Your task to perform on an android device: Search for sushi restaurants on Maps Image 0: 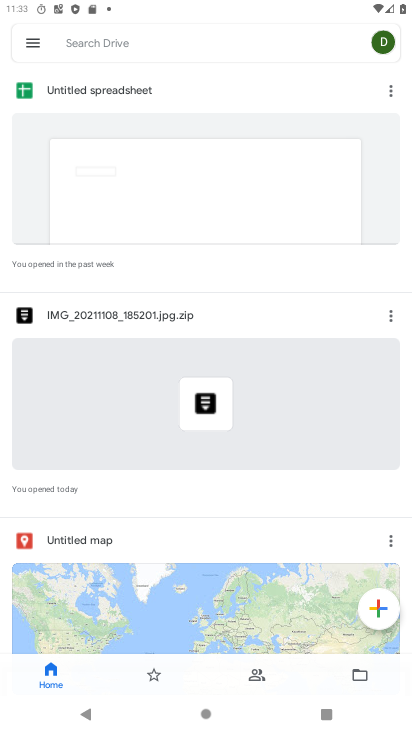
Step 0: press home button
Your task to perform on an android device: Search for sushi restaurants on Maps Image 1: 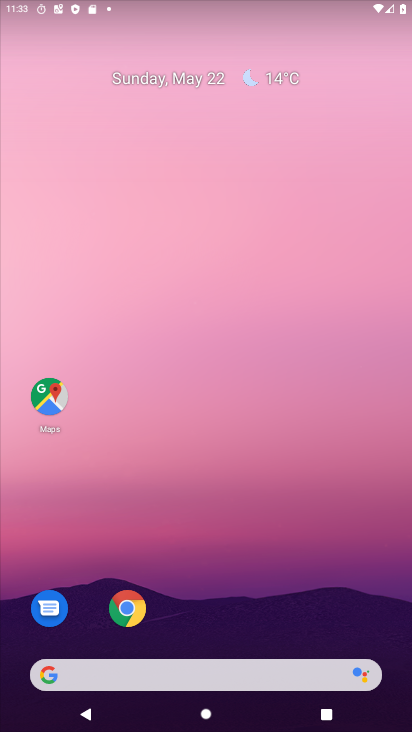
Step 1: drag from (168, 723) to (157, 110)
Your task to perform on an android device: Search for sushi restaurants on Maps Image 2: 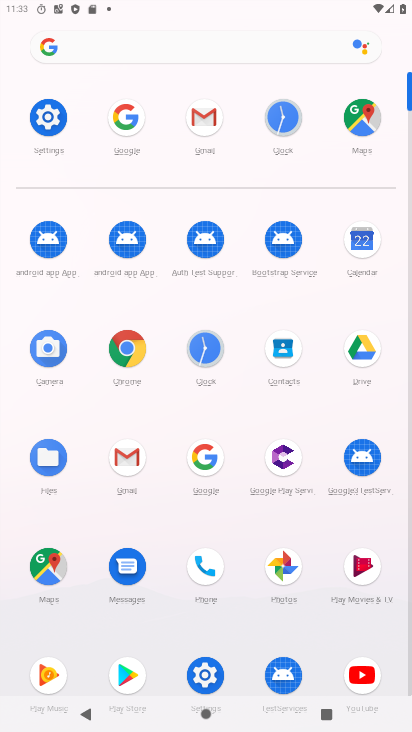
Step 2: click (41, 565)
Your task to perform on an android device: Search for sushi restaurants on Maps Image 3: 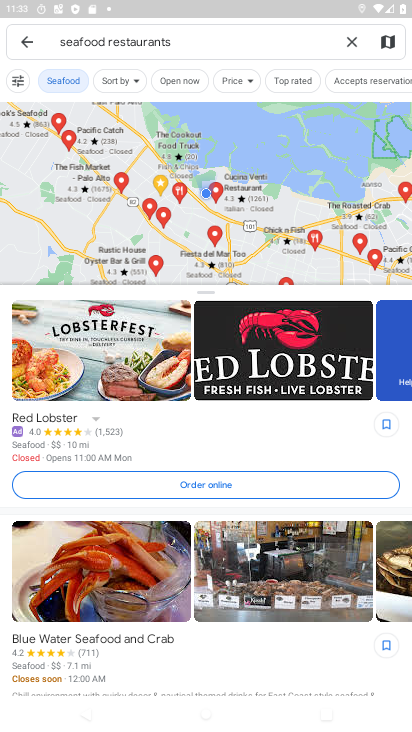
Step 3: click (205, 34)
Your task to perform on an android device: Search for sushi restaurants on Maps Image 4: 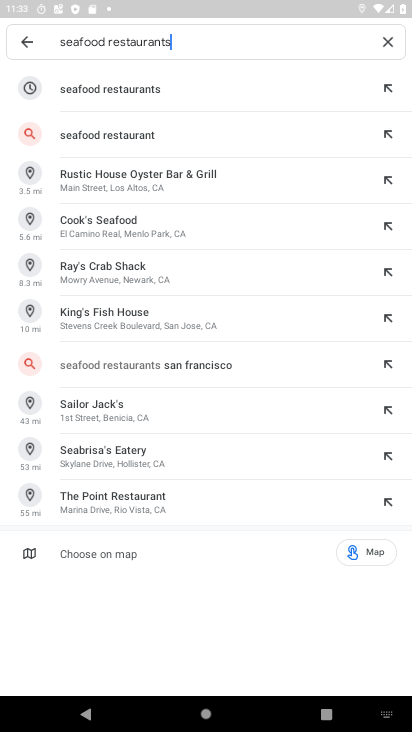
Step 4: click (384, 37)
Your task to perform on an android device: Search for sushi restaurants on Maps Image 5: 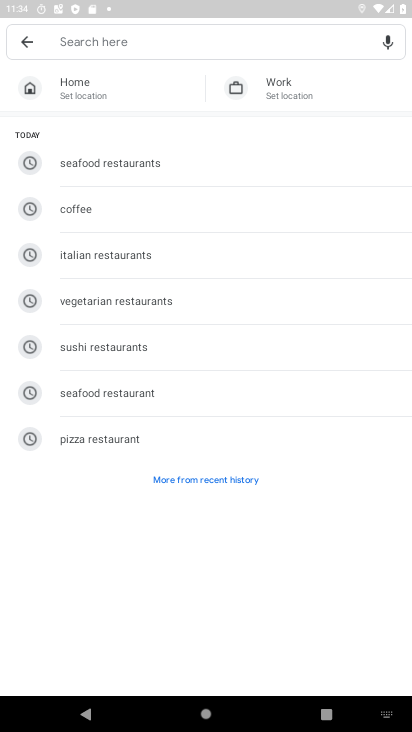
Step 5: type "sushi restaurants"
Your task to perform on an android device: Search for sushi restaurants on Maps Image 6: 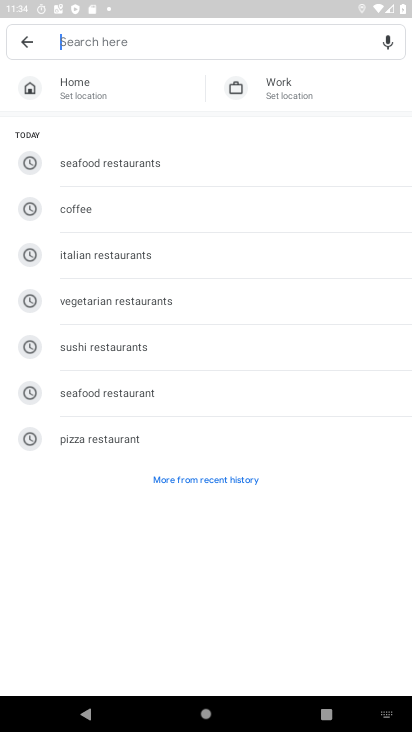
Step 6: click (121, 162)
Your task to perform on an android device: Search for sushi restaurants on Maps Image 7: 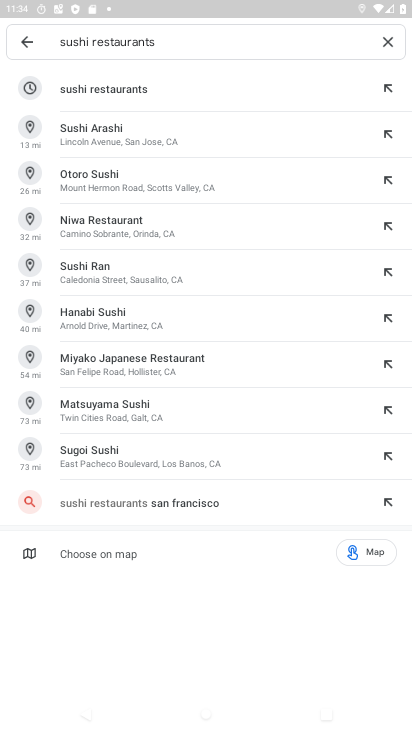
Step 7: click (106, 88)
Your task to perform on an android device: Search for sushi restaurants on Maps Image 8: 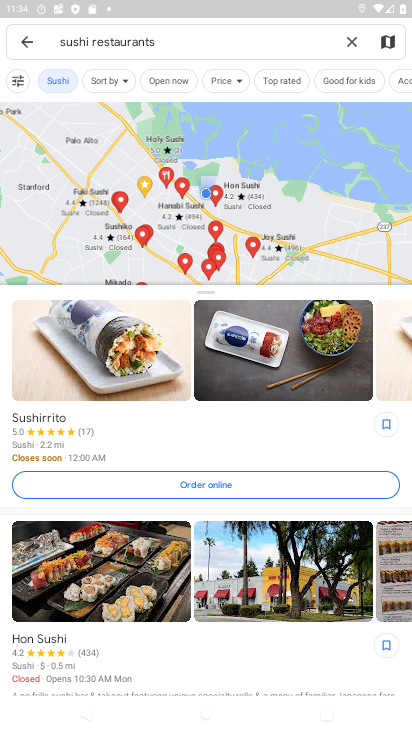
Step 8: task complete